Your task to perform on an android device: Find coffee shops on Maps Image 0: 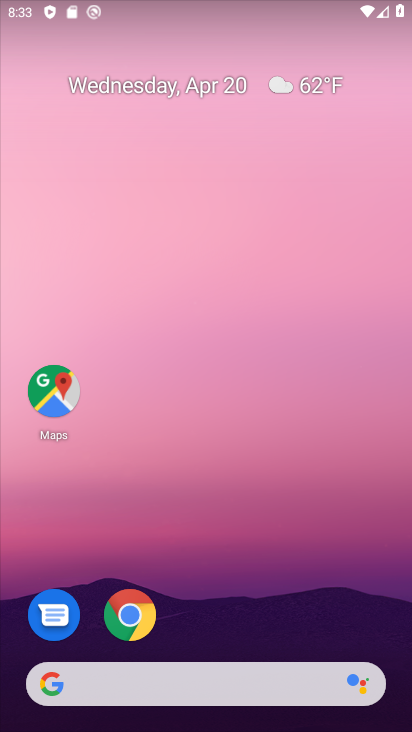
Step 0: drag from (182, 613) to (350, 48)
Your task to perform on an android device: Find coffee shops on Maps Image 1: 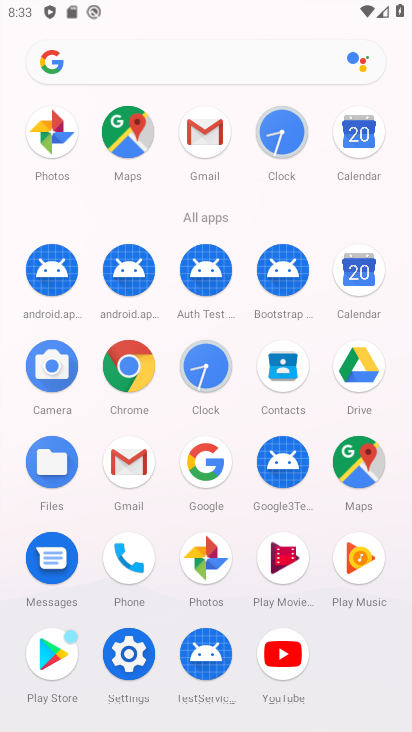
Step 1: click (125, 146)
Your task to perform on an android device: Find coffee shops on Maps Image 2: 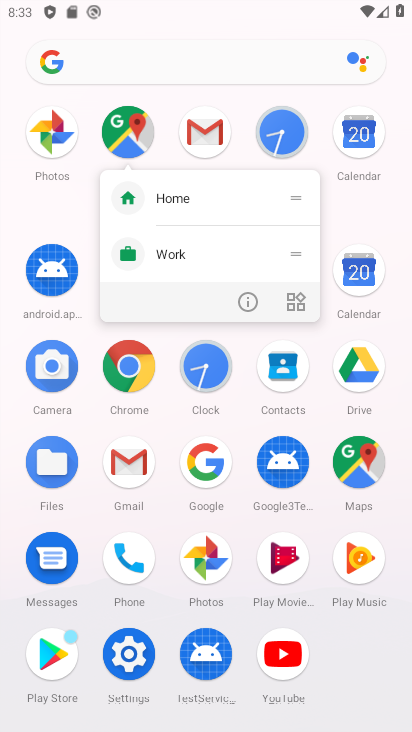
Step 2: click (118, 139)
Your task to perform on an android device: Find coffee shops on Maps Image 3: 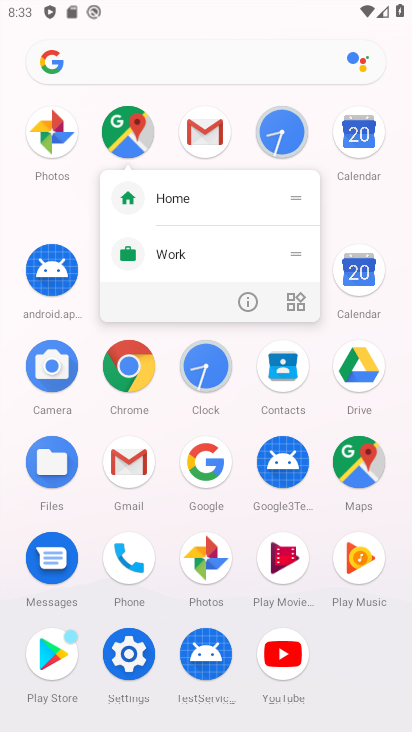
Step 3: click (129, 136)
Your task to perform on an android device: Find coffee shops on Maps Image 4: 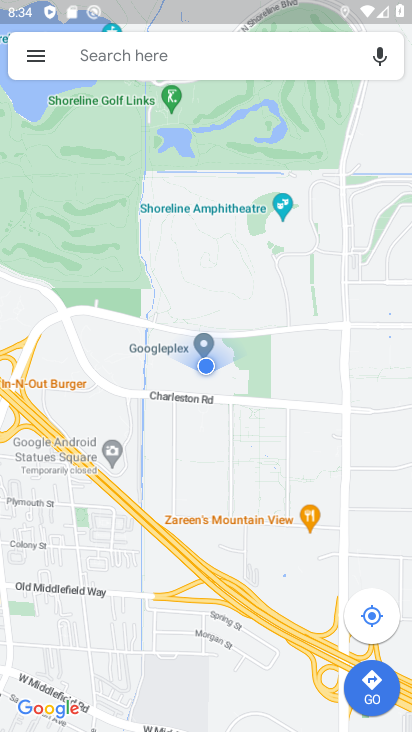
Step 4: click (161, 51)
Your task to perform on an android device: Find coffee shops on Maps Image 5: 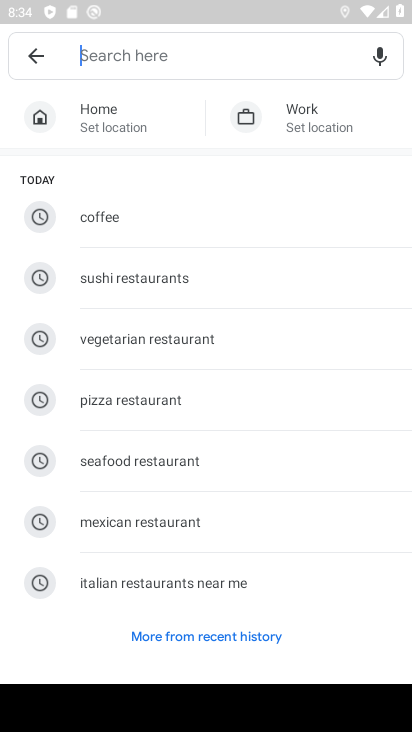
Step 5: click (103, 213)
Your task to perform on an android device: Find coffee shops on Maps Image 6: 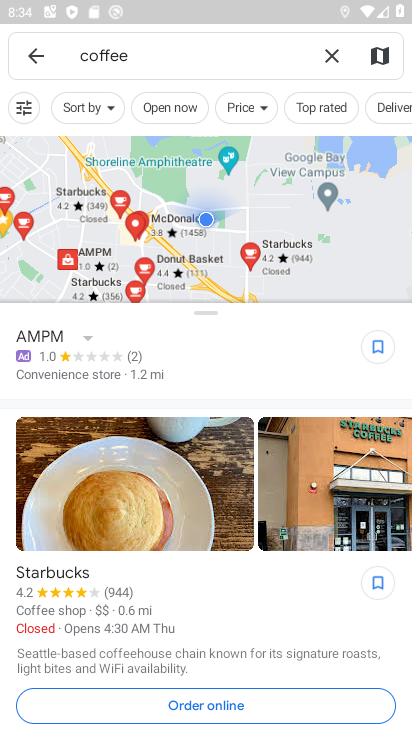
Step 6: task complete